Your task to perform on an android device: change timer sound Image 0: 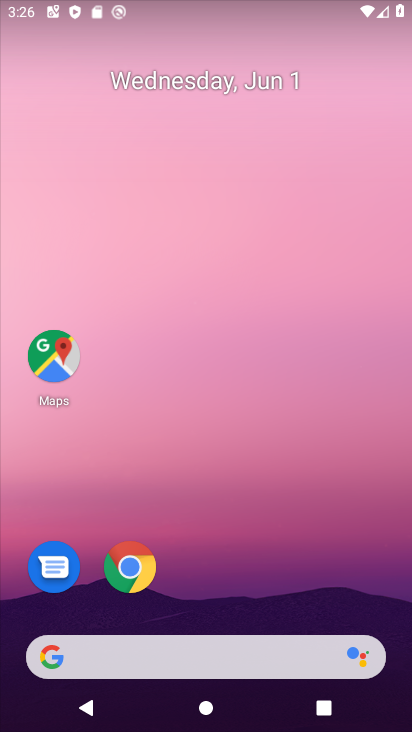
Step 0: drag from (152, 582) to (150, 227)
Your task to perform on an android device: change timer sound Image 1: 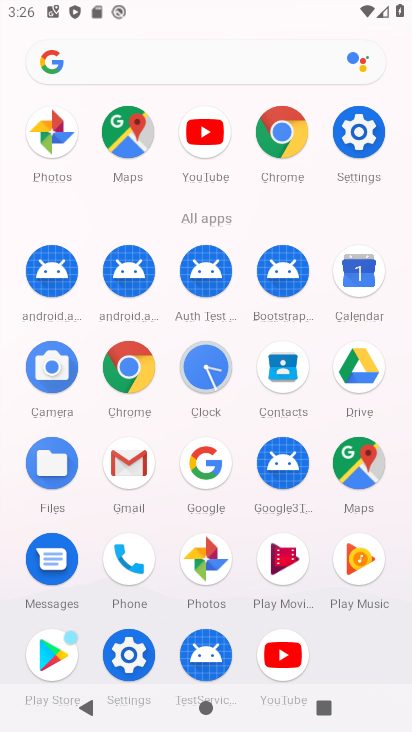
Step 1: click (203, 369)
Your task to perform on an android device: change timer sound Image 2: 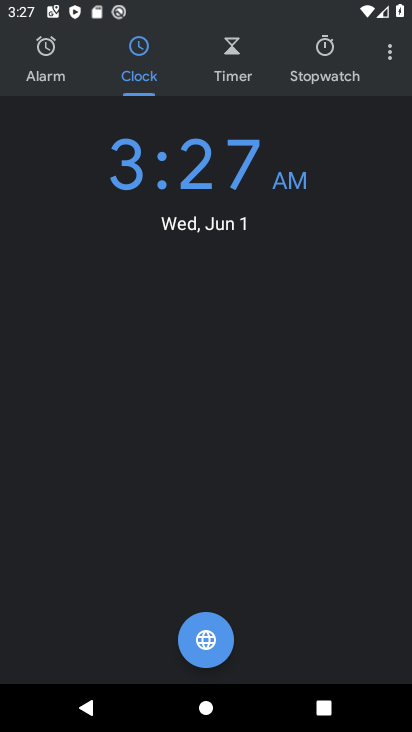
Step 2: click (226, 68)
Your task to perform on an android device: change timer sound Image 3: 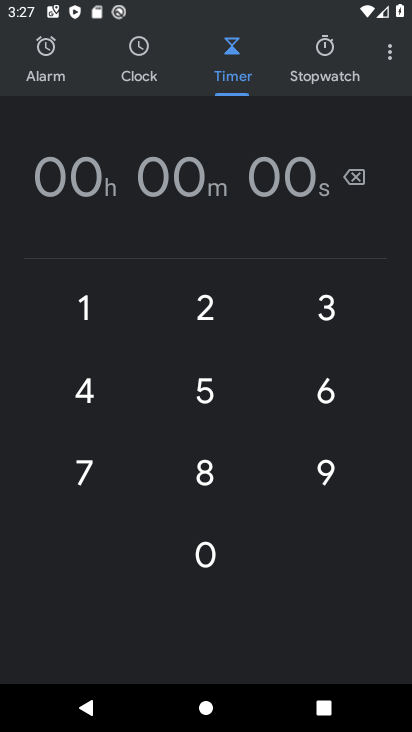
Step 3: click (214, 553)
Your task to perform on an android device: change timer sound Image 4: 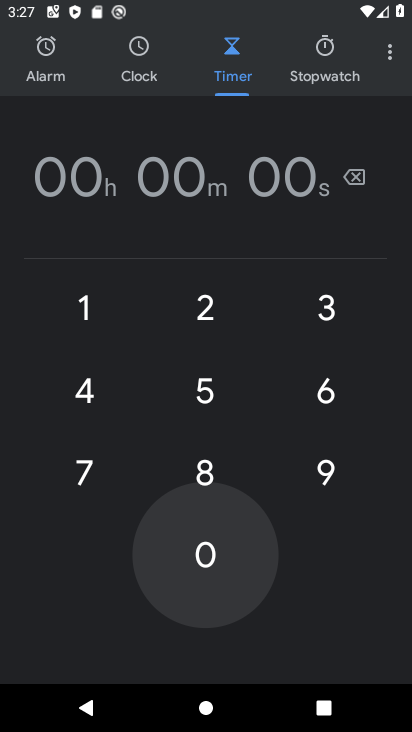
Step 4: click (208, 406)
Your task to perform on an android device: change timer sound Image 5: 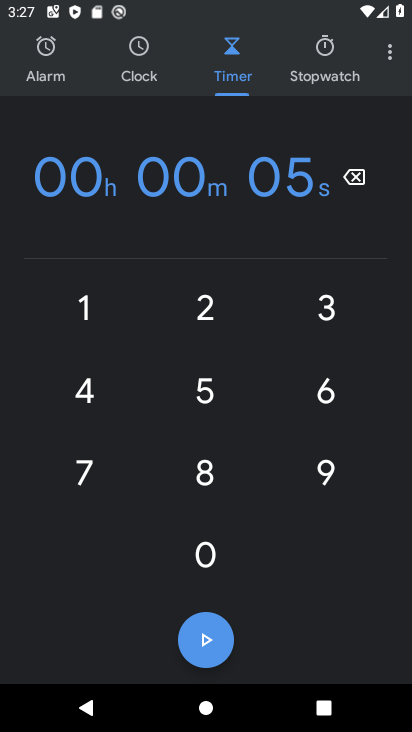
Step 5: click (391, 43)
Your task to perform on an android device: change timer sound Image 6: 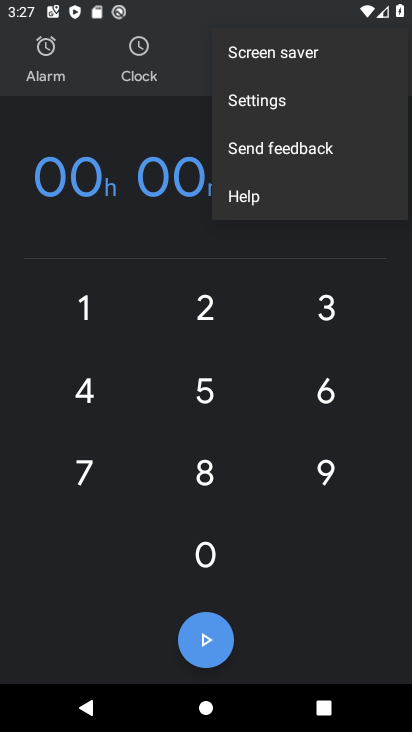
Step 6: click (261, 104)
Your task to perform on an android device: change timer sound Image 7: 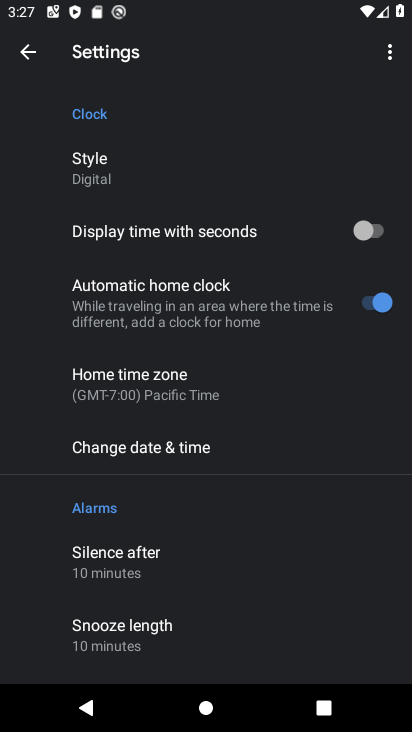
Step 7: drag from (157, 624) to (109, 285)
Your task to perform on an android device: change timer sound Image 8: 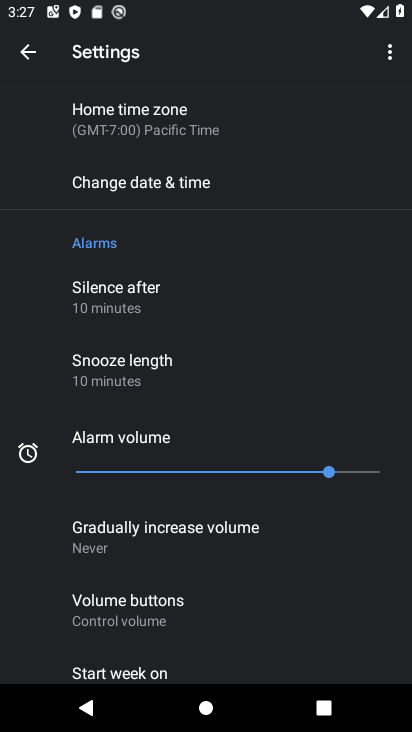
Step 8: drag from (131, 629) to (109, 294)
Your task to perform on an android device: change timer sound Image 9: 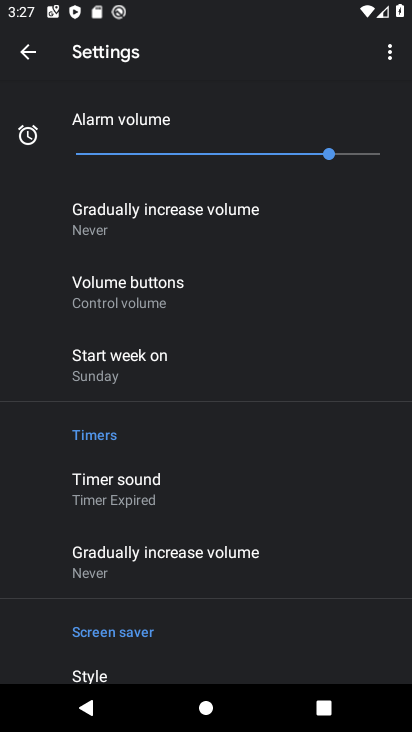
Step 9: click (115, 503)
Your task to perform on an android device: change timer sound Image 10: 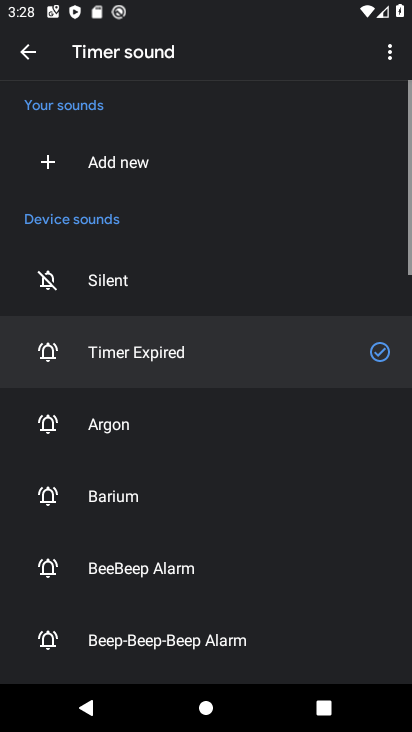
Step 10: click (115, 502)
Your task to perform on an android device: change timer sound Image 11: 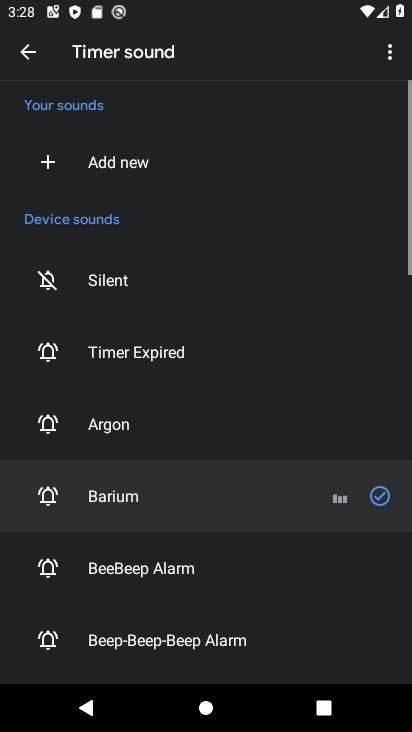
Step 11: task complete